Your task to perform on an android device: Open Chrome and go to settings Image 0: 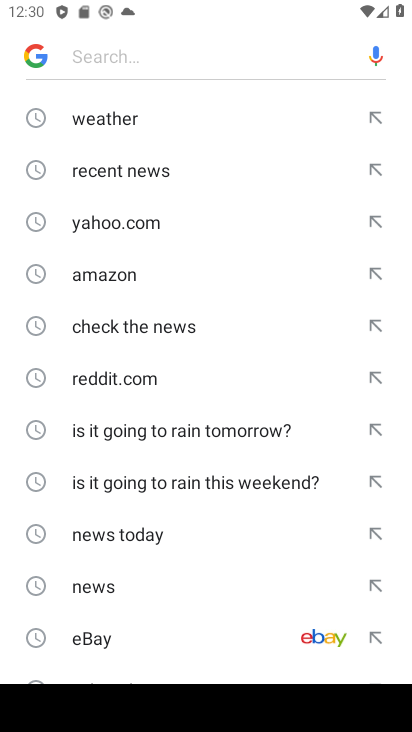
Step 0: press back button
Your task to perform on an android device: Open Chrome and go to settings Image 1: 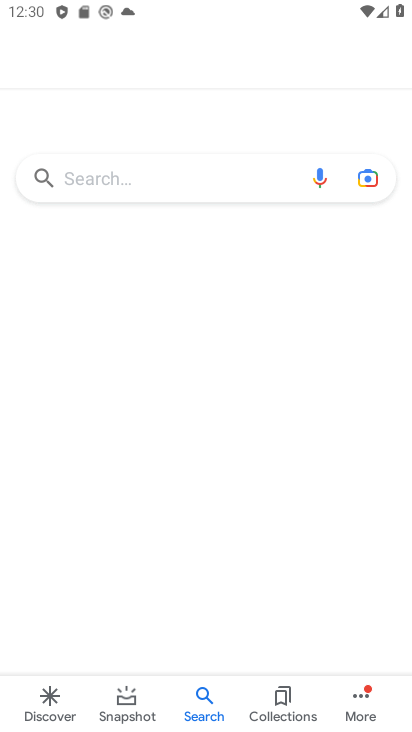
Step 1: press back button
Your task to perform on an android device: Open Chrome and go to settings Image 2: 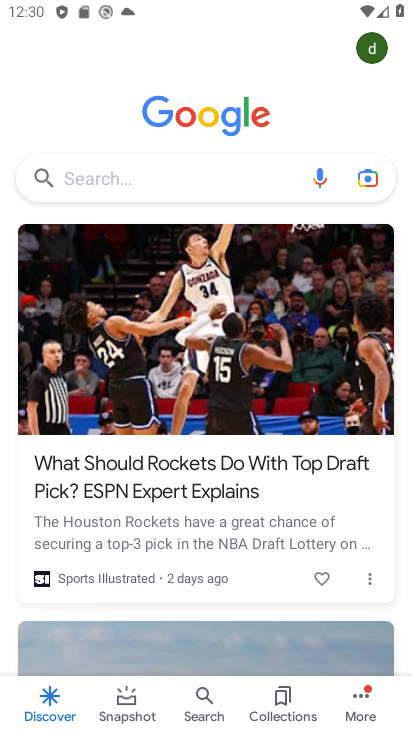
Step 2: press back button
Your task to perform on an android device: Open Chrome and go to settings Image 3: 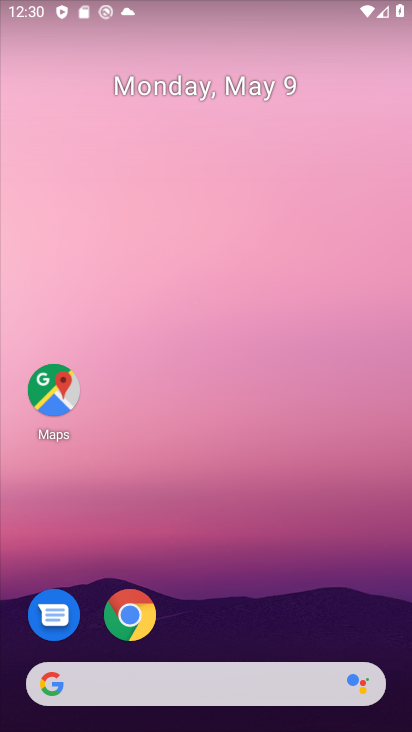
Step 3: press back button
Your task to perform on an android device: Open Chrome and go to settings Image 4: 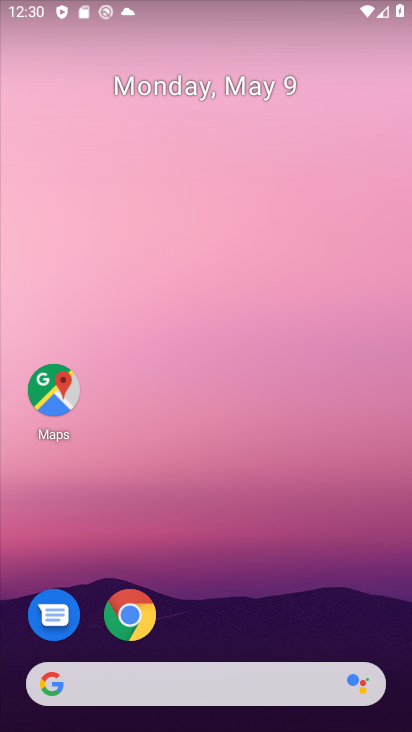
Step 4: click (128, 617)
Your task to perform on an android device: Open Chrome and go to settings Image 5: 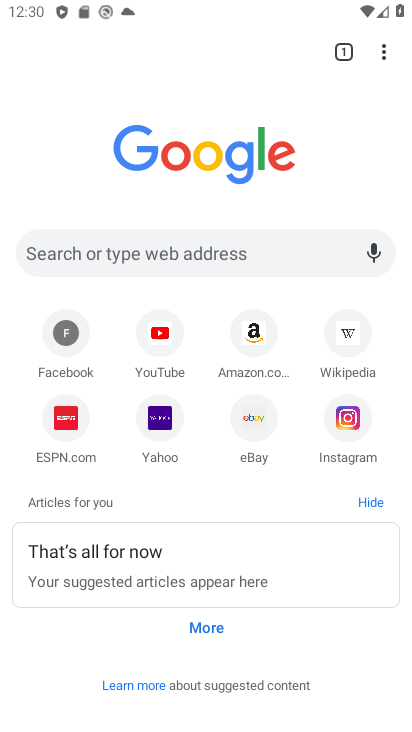
Step 5: click (386, 51)
Your task to perform on an android device: Open Chrome and go to settings Image 6: 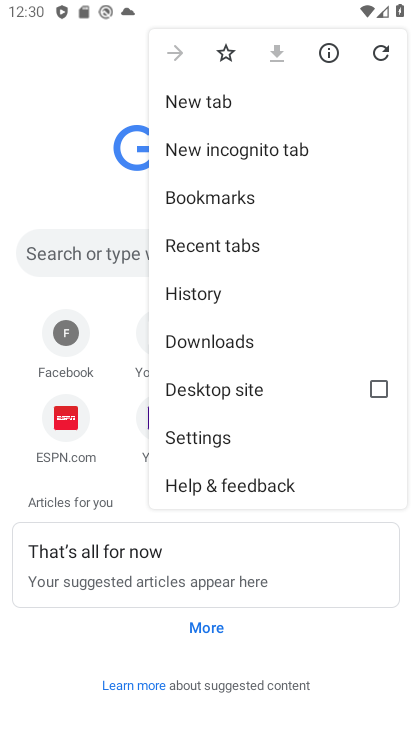
Step 6: click (216, 437)
Your task to perform on an android device: Open Chrome and go to settings Image 7: 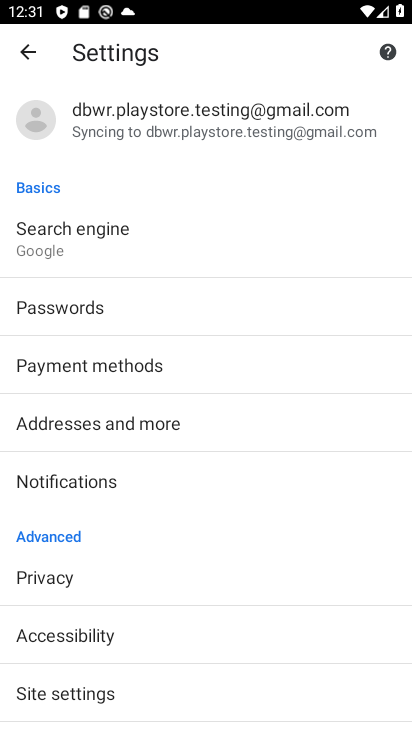
Step 7: task complete